Your task to perform on an android device: check storage Image 0: 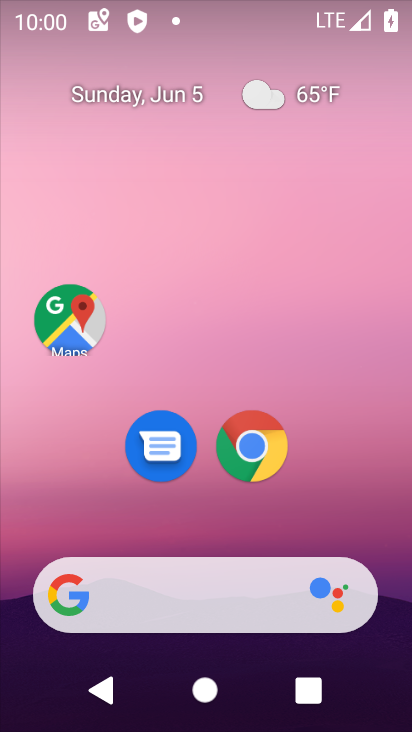
Step 0: drag from (194, 531) to (204, 128)
Your task to perform on an android device: check storage Image 1: 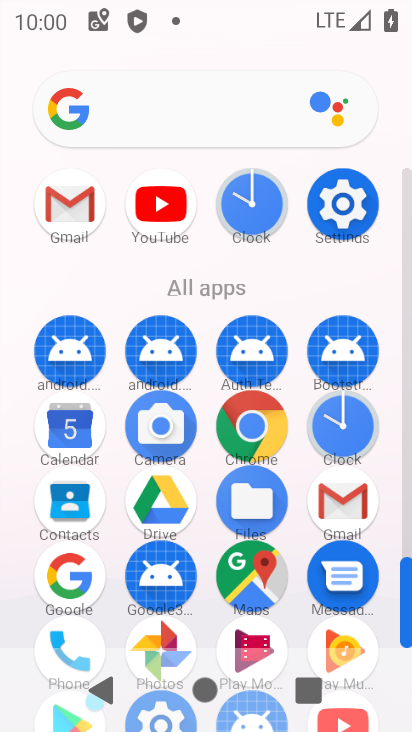
Step 1: click (343, 204)
Your task to perform on an android device: check storage Image 2: 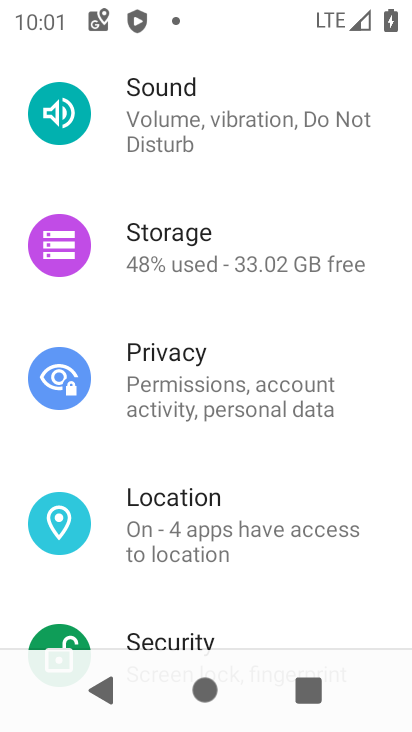
Step 2: click (184, 255)
Your task to perform on an android device: check storage Image 3: 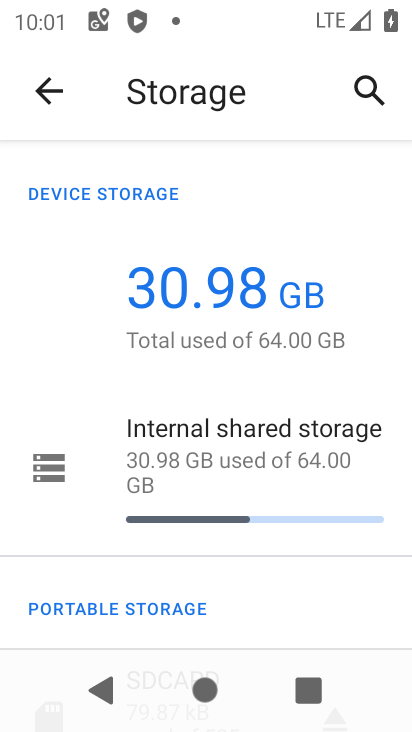
Step 3: task complete